Your task to perform on an android device: open chrome privacy settings Image 0: 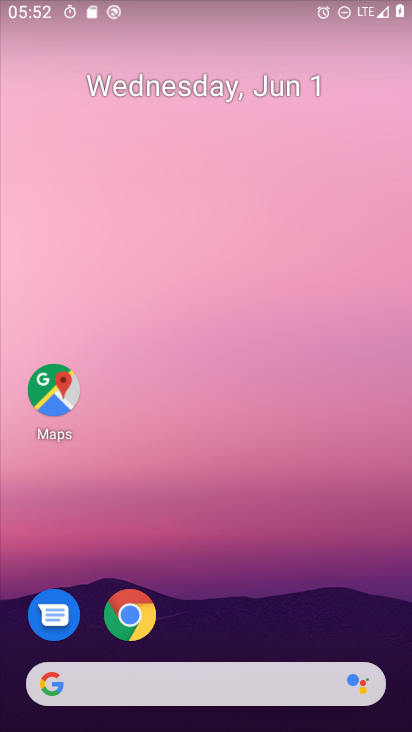
Step 0: drag from (310, 689) to (360, 87)
Your task to perform on an android device: open chrome privacy settings Image 1: 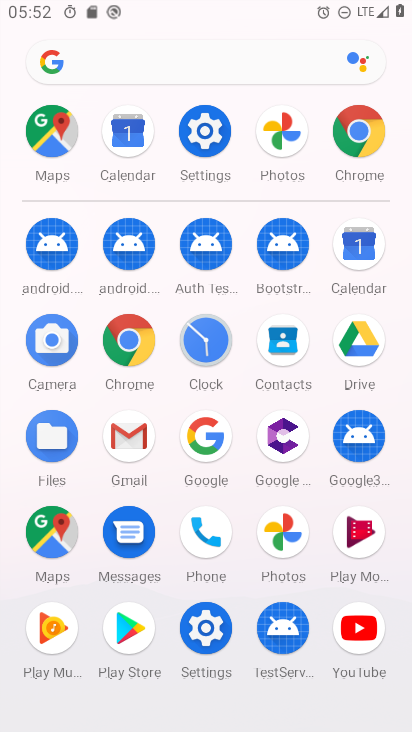
Step 1: click (211, 131)
Your task to perform on an android device: open chrome privacy settings Image 2: 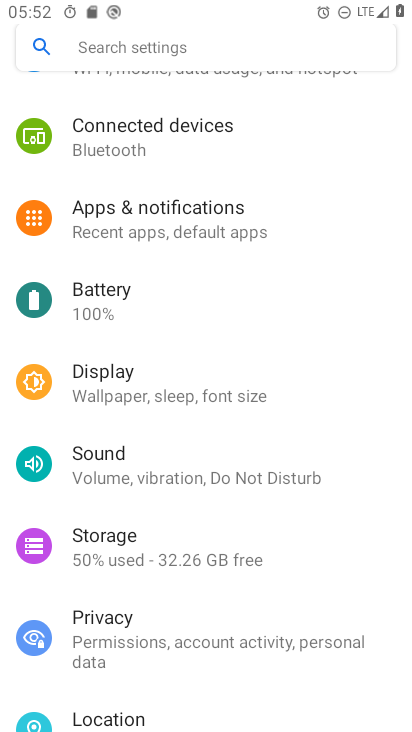
Step 2: press home button
Your task to perform on an android device: open chrome privacy settings Image 3: 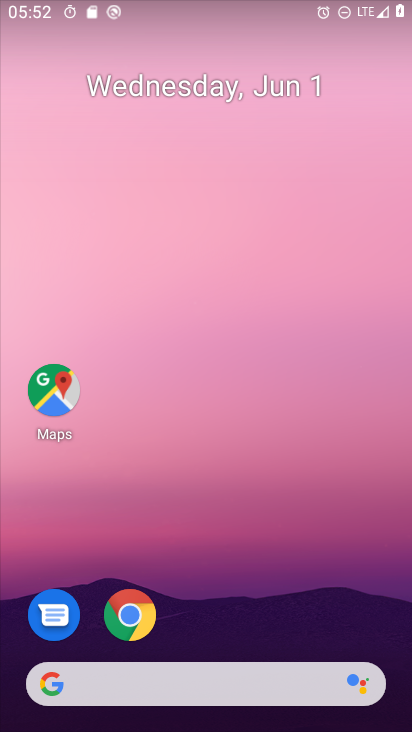
Step 3: drag from (326, 675) to (315, 51)
Your task to perform on an android device: open chrome privacy settings Image 4: 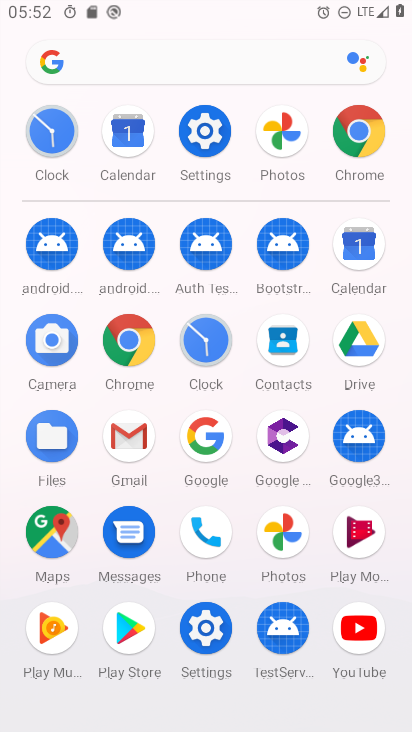
Step 4: click (135, 349)
Your task to perform on an android device: open chrome privacy settings Image 5: 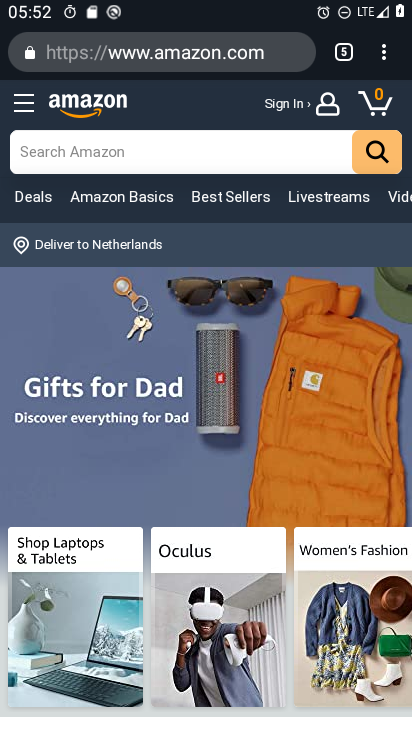
Step 5: drag from (382, 54) to (216, 623)
Your task to perform on an android device: open chrome privacy settings Image 6: 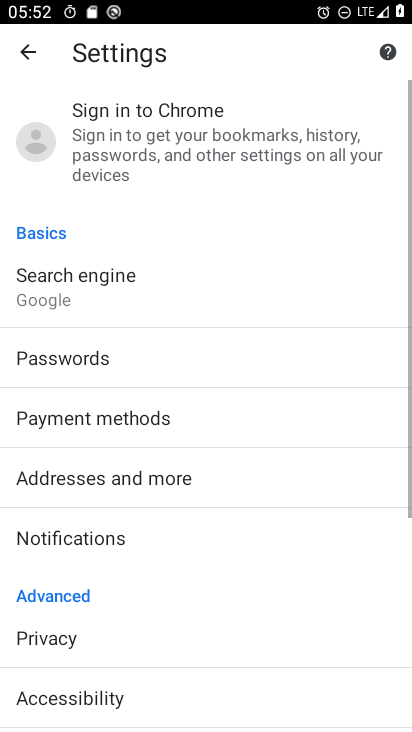
Step 6: click (108, 648)
Your task to perform on an android device: open chrome privacy settings Image 7: 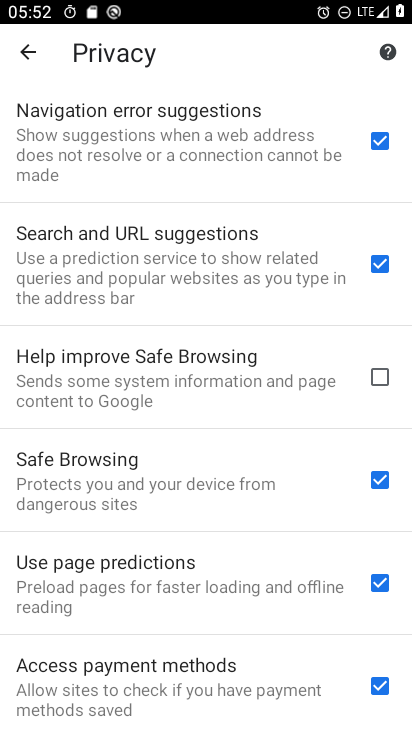
Step 7: task complete